Your task to perform on an android device: Open wifi settings Image 0: 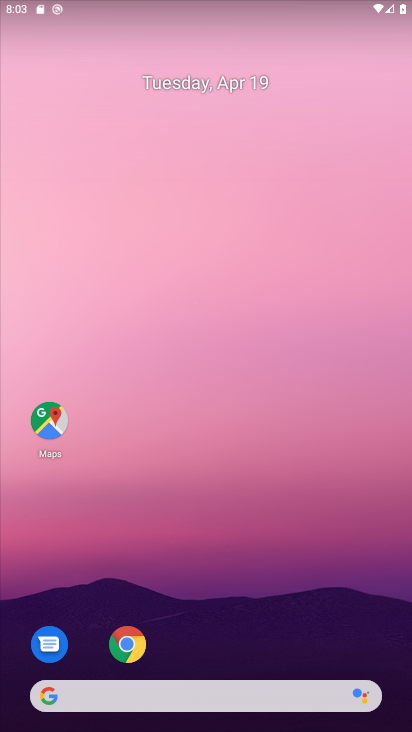
Step 0: drag from (182, 666) to (231, 117)
Your task to perform on an android device: Open wifi settings Image 1: 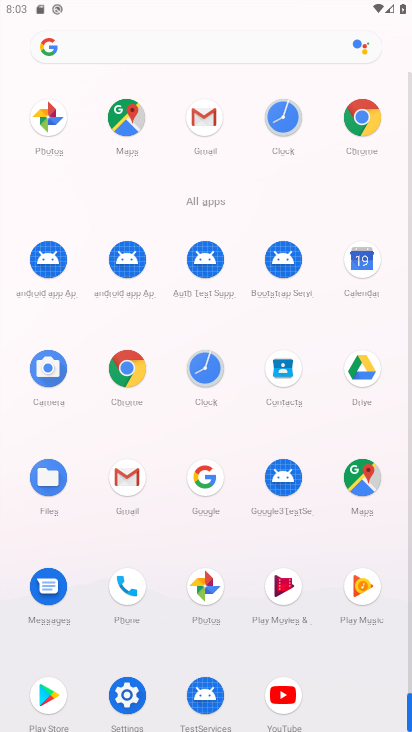
Step 1: click (121, 692)
Your task to perform on an android device: Open wifi settings Image 2: 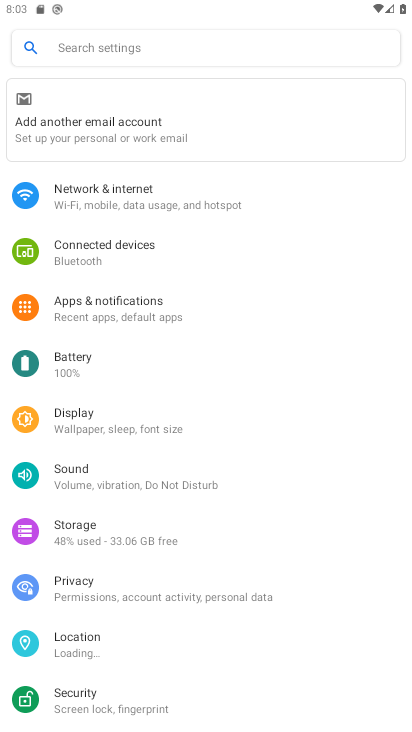
Step 2: click (104, 204)
Your task to perform on an android device: Open wifi settings Image 3: 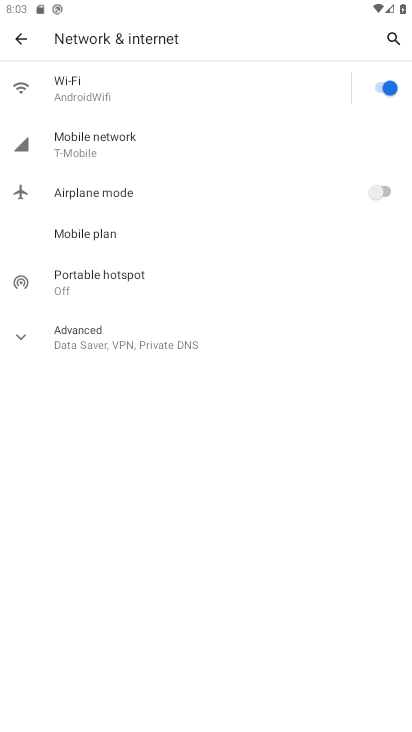
Step 3: click (80, 88)
Your task to perform on an android device: Open wifi settings Image 4: 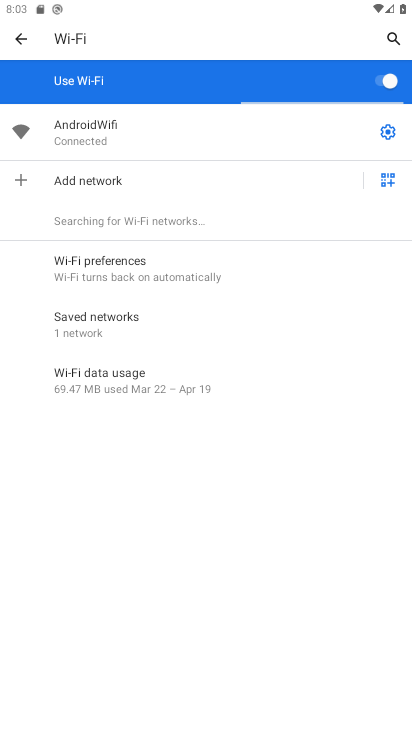
Step 4: task complete